Your task to perform on an android device: open app "PUBG MOBILE" Image 0: 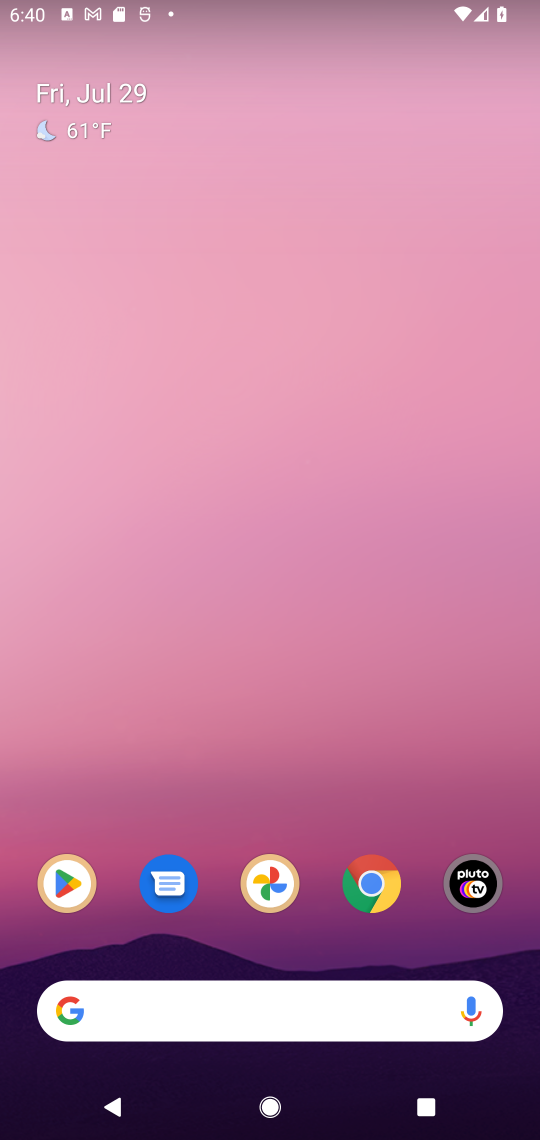
Step 0: click (73, 892)
Your task to perform on an android device: open app "PUBG MOBILE" Image 1: 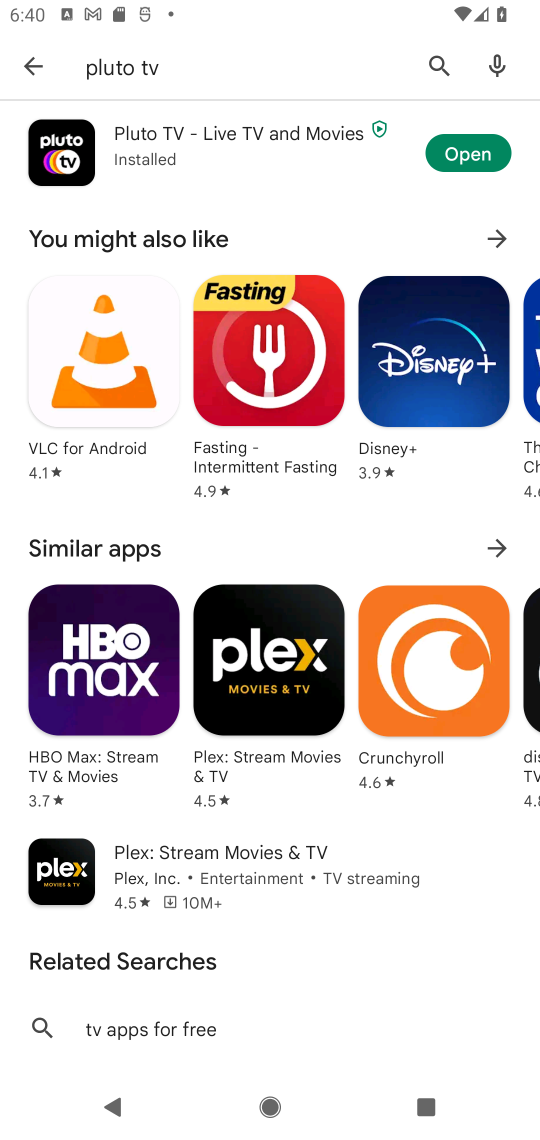
Step 1: click (436, 56)
Your task to perform on an android device: open app "PUBG MOBILE" Image 2: 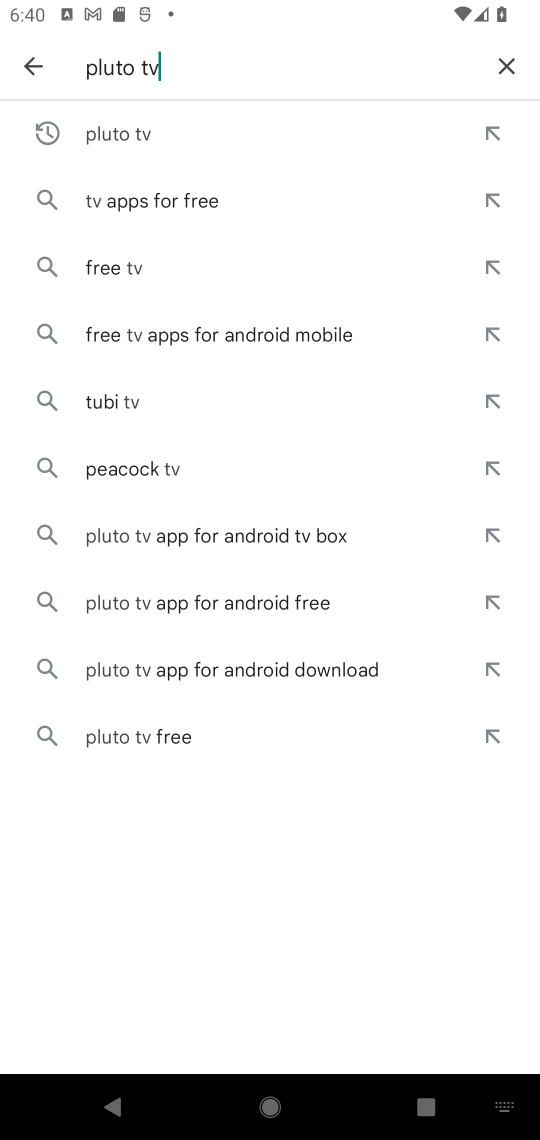
Step 2: click (502, 65)
Your task to perform on an android device: open app "PUBG MOBILE" Image 3: 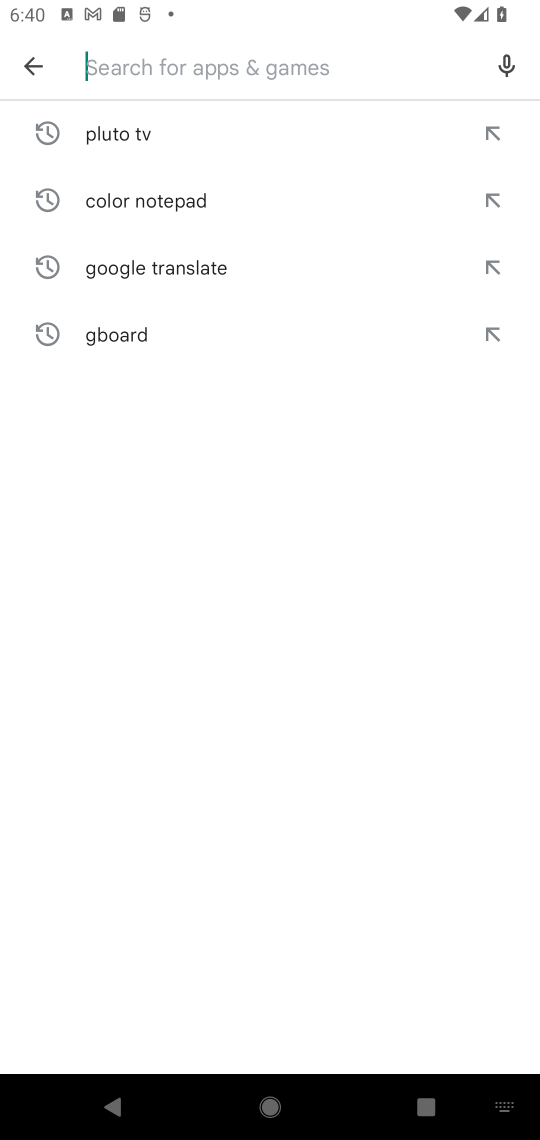
Step 3: click (229, 78)
Your task to perform on an android device: open app "PUBG MOBILE" Image 4: 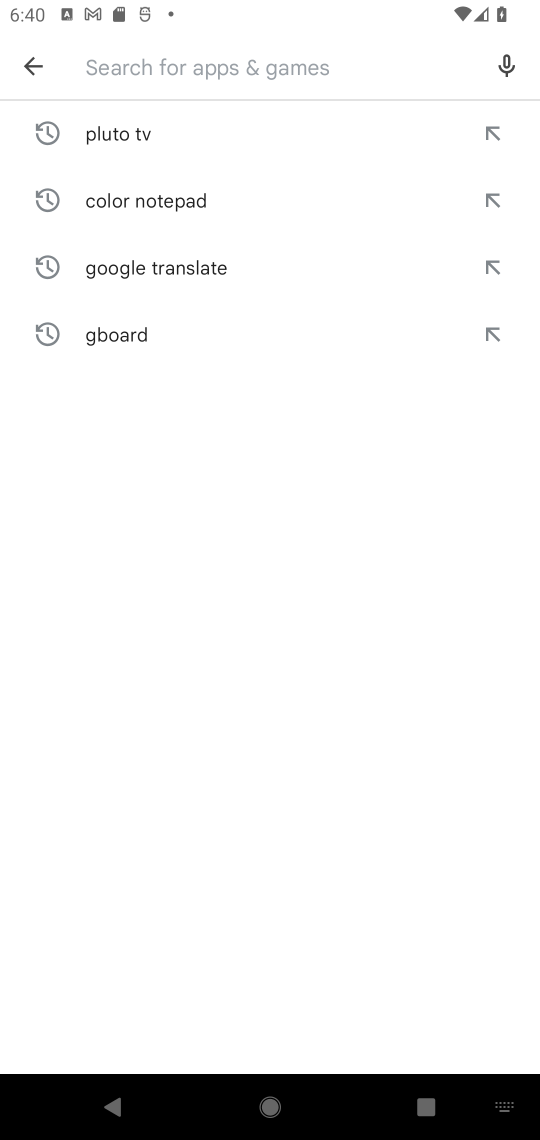
Step 4: type "pubg mobile"
Your task to perform on an android device: open app "PUBG MOBILE" Image 5: 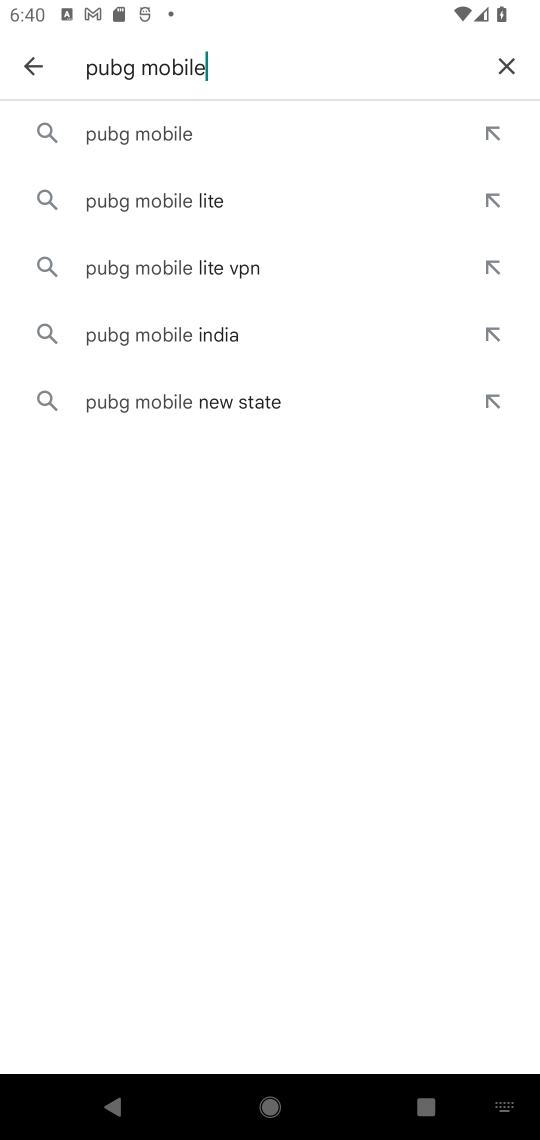
Step 5: click (173, 138)
Your task to perform on an android device: open app "PUBG MOBILE" Image 6: 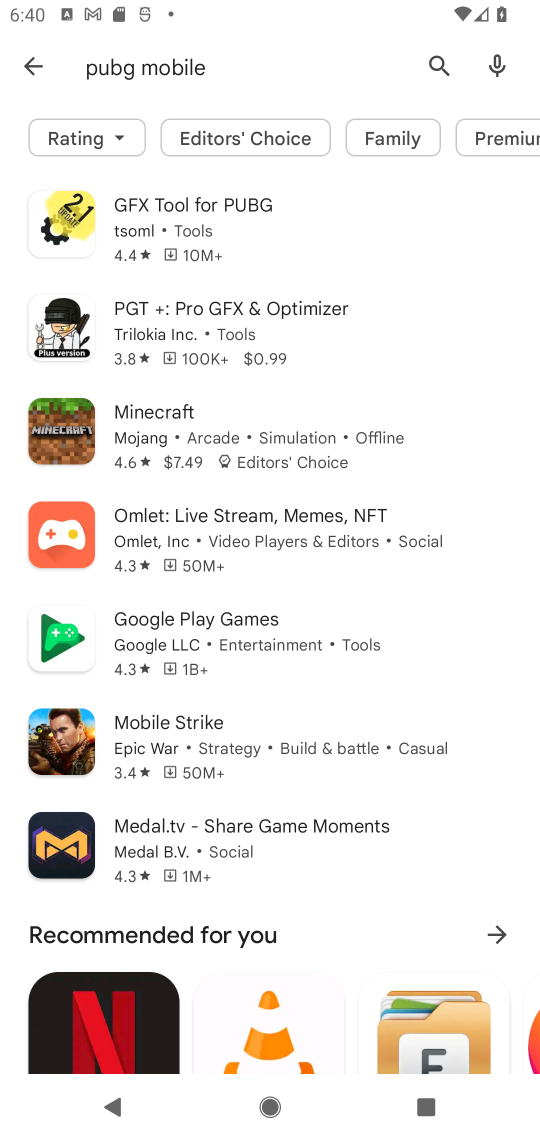
Step 6: task complete